Your task to perform on an android device: turn on notifications settings in the gmail app Image 0: 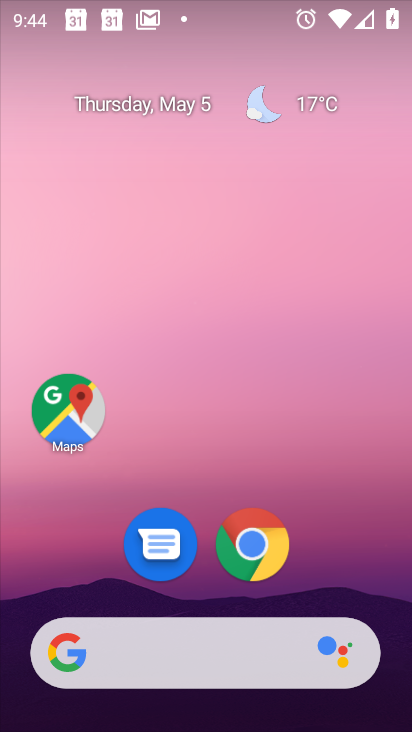
Step 0: drag from (332, 535) to (349, 110)
Your task to perform on an android device: turn on notifications settings in the gmail app Image 1: 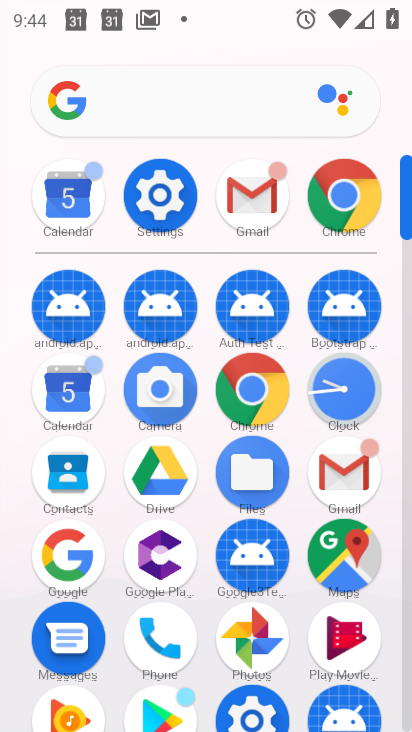
Step 1: click (244, 212)
Your task to perform on an android device: turn on notifications settings in the gmail app Image 2: 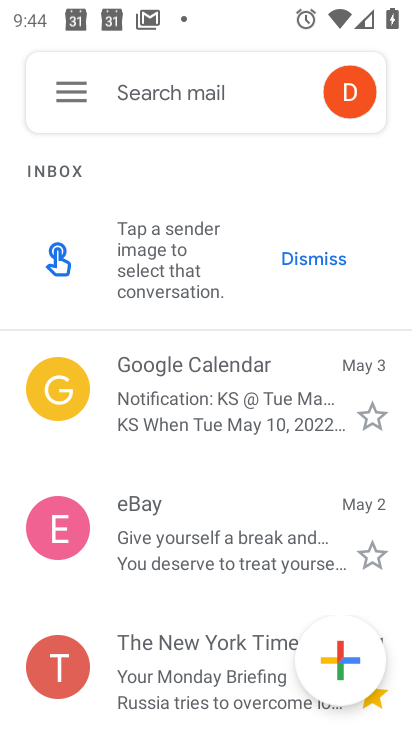
Step 2: click (67, 79)
Your task to perform on an android device: turn on notifications settings in the gmail app Image 3: 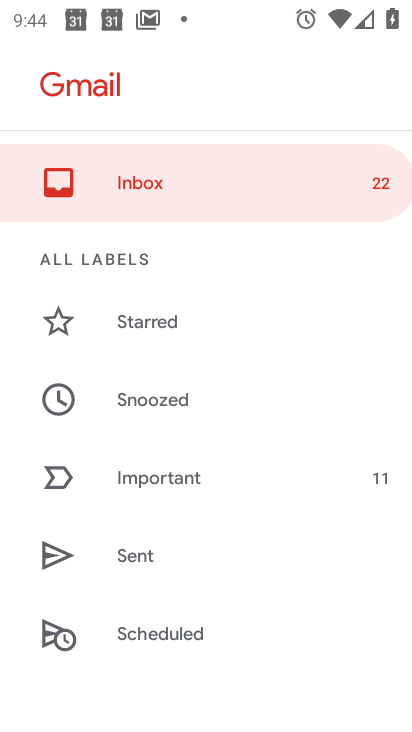
Step 3: drag from (151, 536) to (202, 231)
Your task to perform on an android device: turn on notifications settings in the gmail app Image 4: 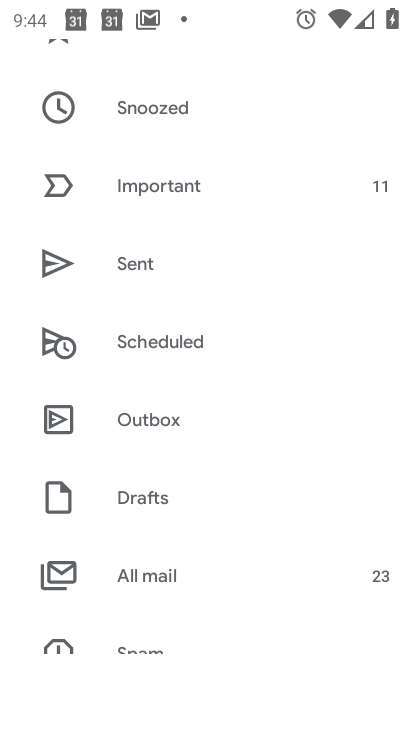
Step 4: drag from (191, 601) to (201, 295)
Your task to perform on an android device: turn on notifications settings in the gmail app Image 5: 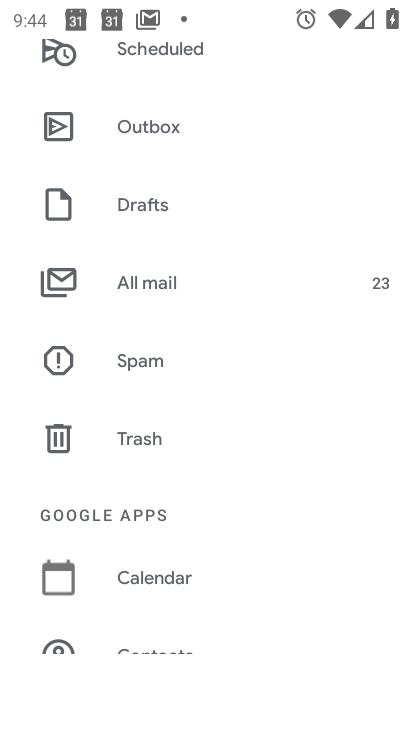
Step 5: drag from (202, 627) to (229, 302)
Your task to perform on an android device: turn on notifications settings in the gmail app Image 6: 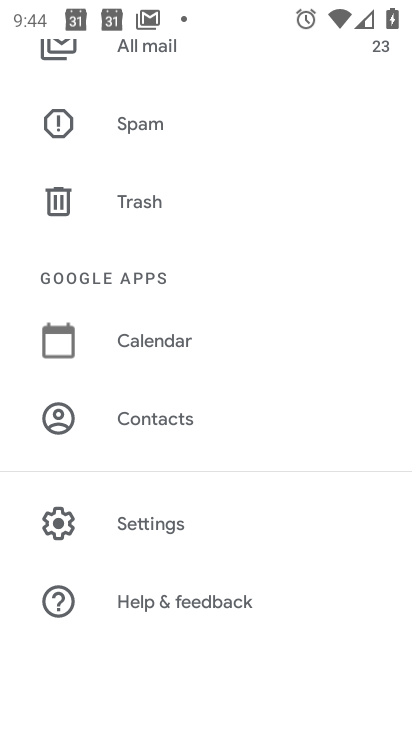
Step 6: click (226, 515)
Your task to perform on an android device: turn on notifications settings in the gmail app Image 7: 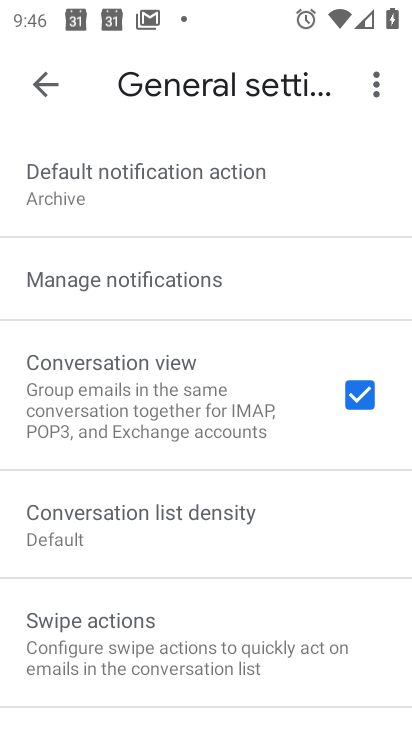
Step 7: task complete